Your task to perform on an android device: check the backup settings in the google photos Image 0: 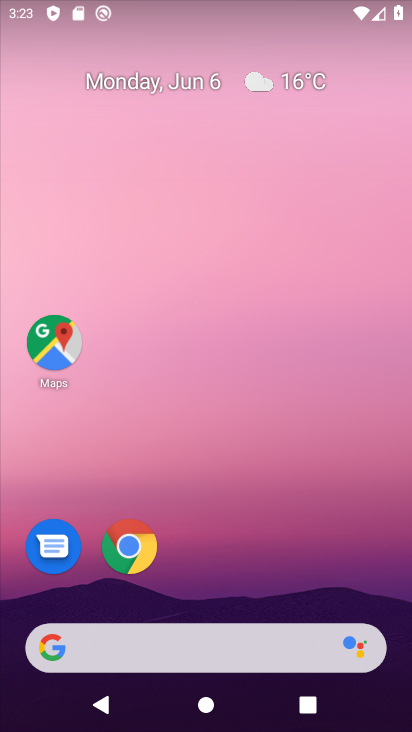
Step 0: drag from (301, 555) to (248, 8)
Your task to perform on an android device: check the backup settings in the google photos Image 1: 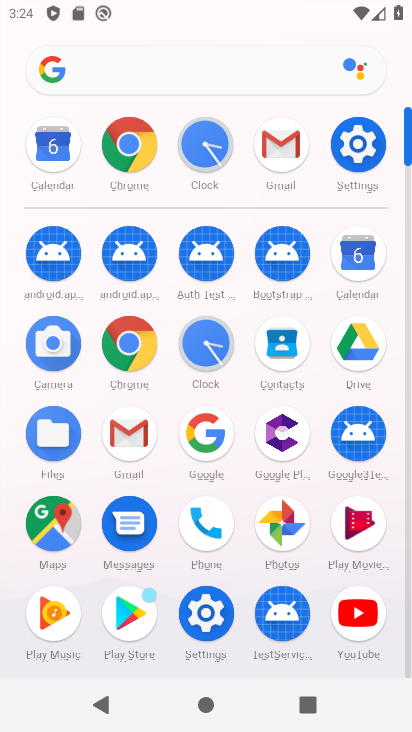
Step 1: click (277, 517)
Your task to perform on an android device: check the backup settings in the google photos Image 2: 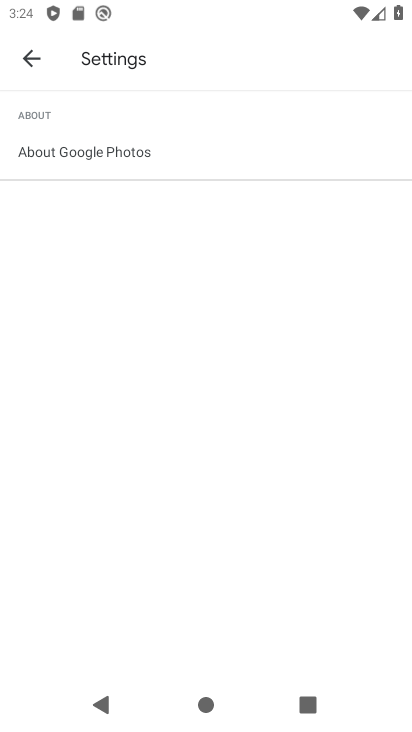
Step 2: click (11, 64)
Your task to perform on an android device: check the backup settings in the google photos Image 3: 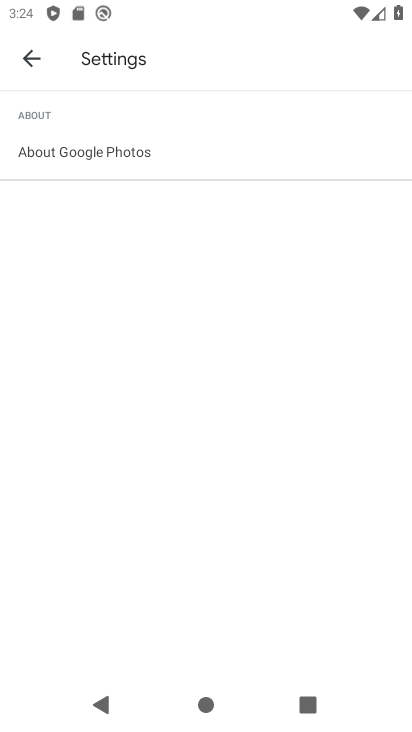
Step 3: click (22, 68)
Your task to perform on an android device: check the backup settings in the google photos Image 4: 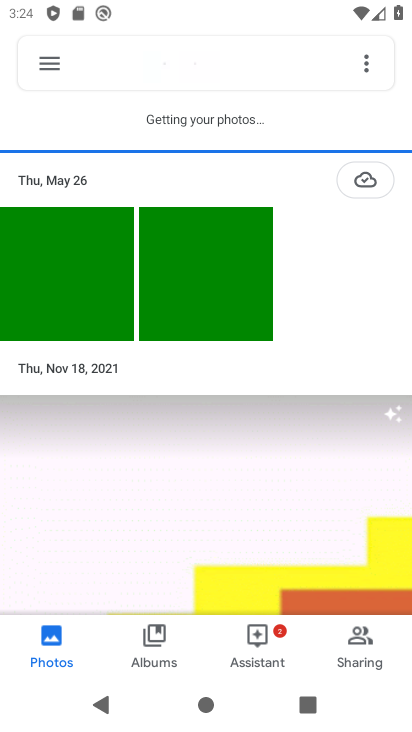
Step 4: click (35, 70)
Your task to perform on an android device: check the backup settings in the google photos Image 5: 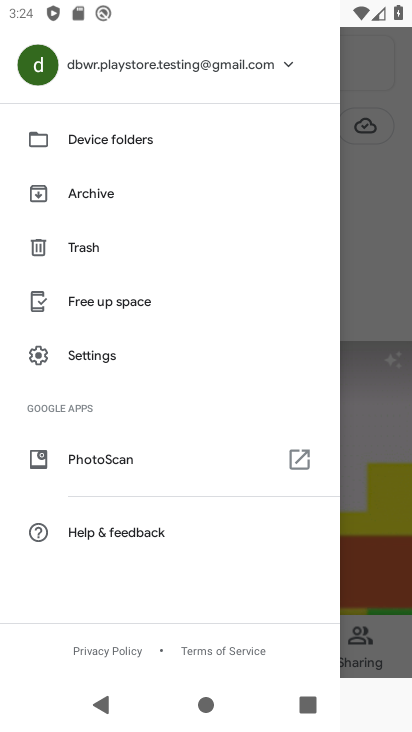
Step 5: click (90, 348)
Your task to perform on an android device: check the backup settings in the google photos Image 6: 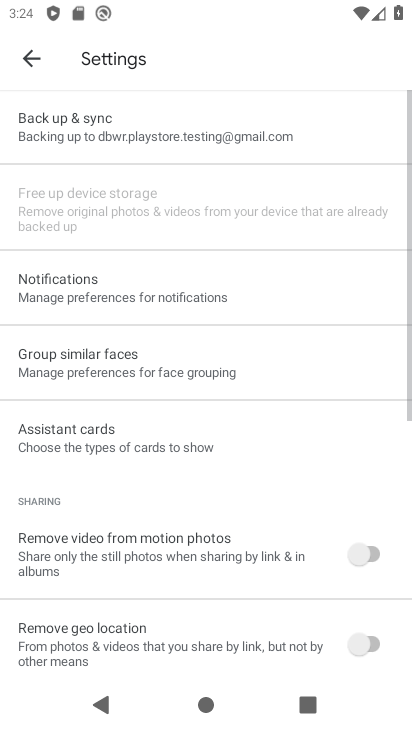
Step 6: click (79, 128)
Your task to perform on an android device: check the backup settings in the google photos Image 7: 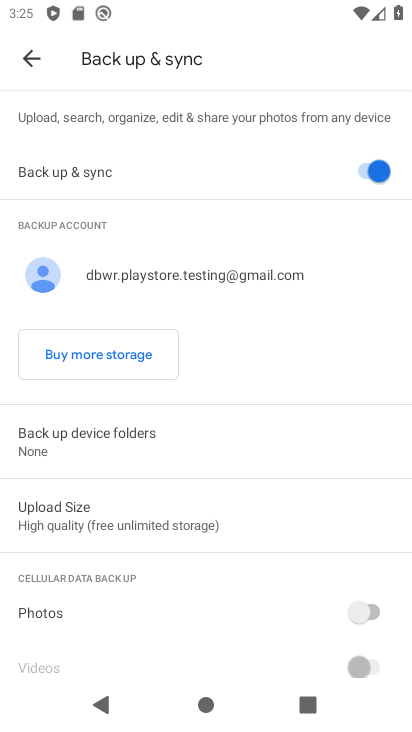
Step 7: drag from (235, 617) to (266, 165)
Your task to perform on an android device: check the backup settings in the google photos Image 8: 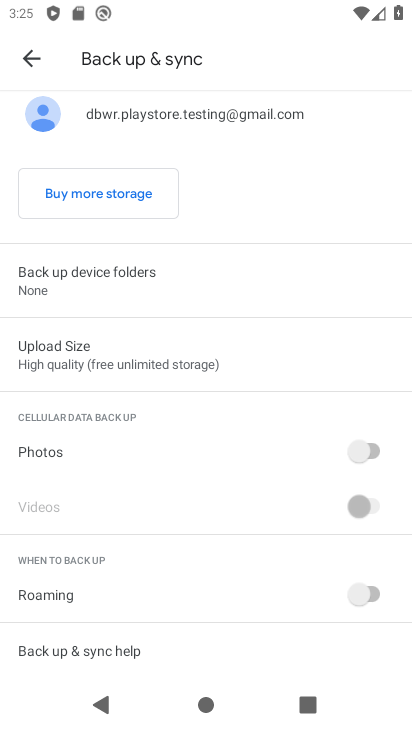
Step 8: click (110, 288)
Your task to perform on an android device: check the backup settings in the google photos Image 9: 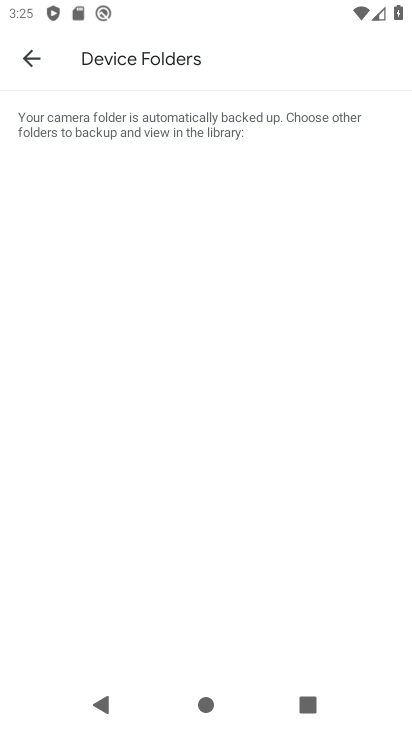
Step 9: task complete